Your task to perform on an android device: turn off wifi Image 0: 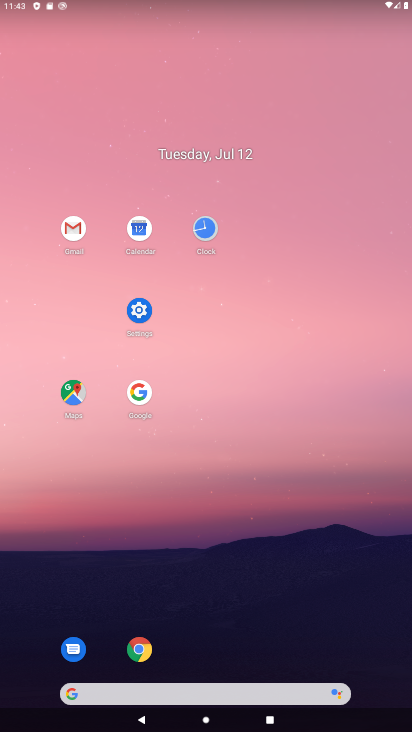
Step 0: click (136, 312)
Your task to perform on an android device: turn off wifi Image 1: 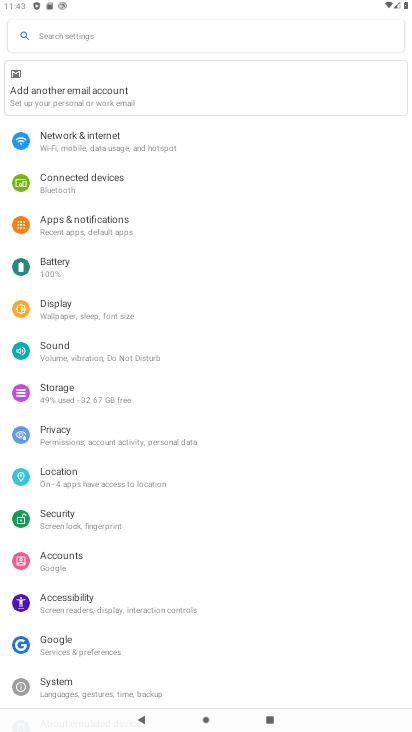
Step 1: click (108, 133)
Your task to perform on an android device: turn off wifi Image 2: 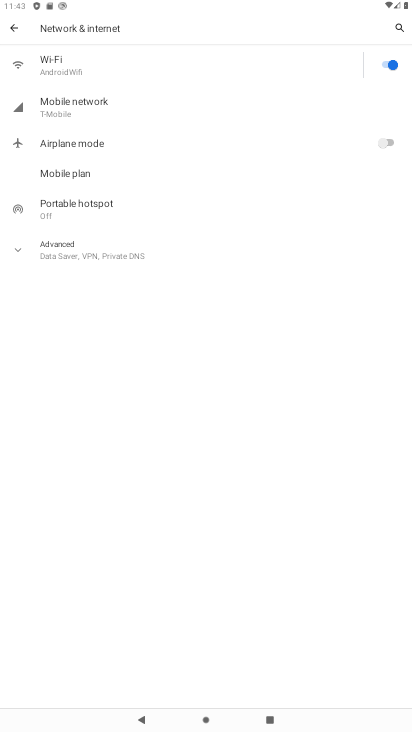
Step 2: click (390, 60)
Your task to perform on an android device: turn off wifi Image 3: 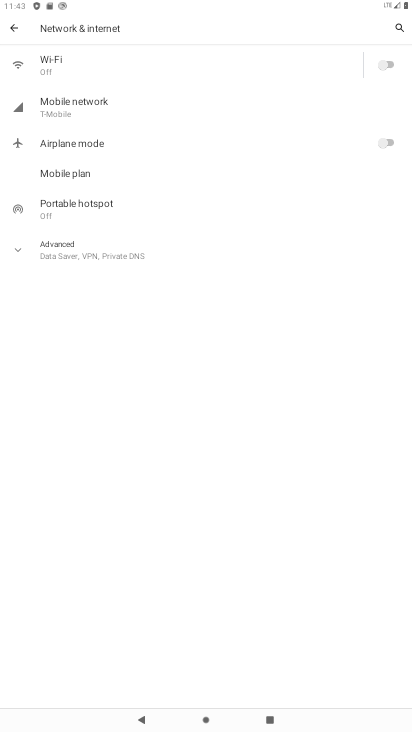
Step 3: task complete